Your task to perform on an android device: Go to ESPN.com Image 0: 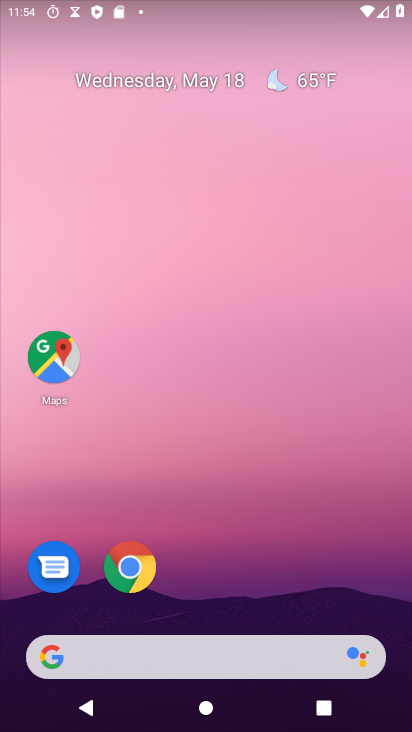
Step 0: click (133, 558)
Your task to perform on an android device: Go to ESPN.com Image 1: 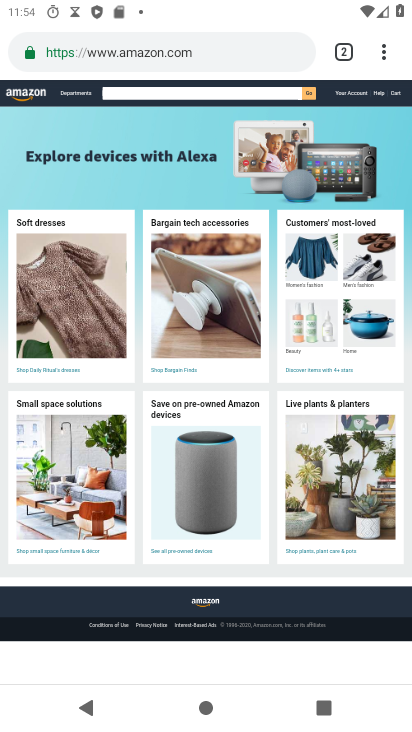
Step 1: click (350, 47)
Your task to perform on an android device: Go to ESPN.com Image 2: 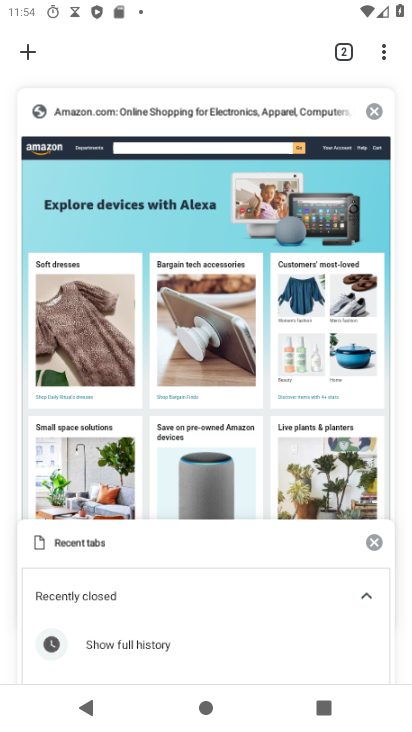
Step 2: click (27, 52)
Your task to perform on an android device: Go to ESPN.com Image 3: 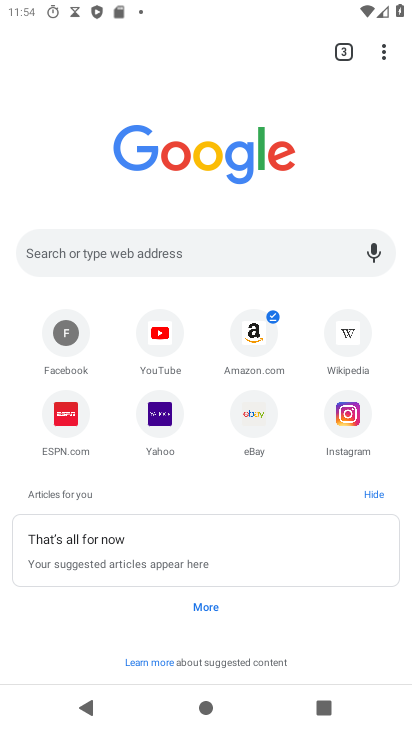
Step 3: click (65, 406)
Your task to perform on an android device: Go to ESPN.com Image 4: 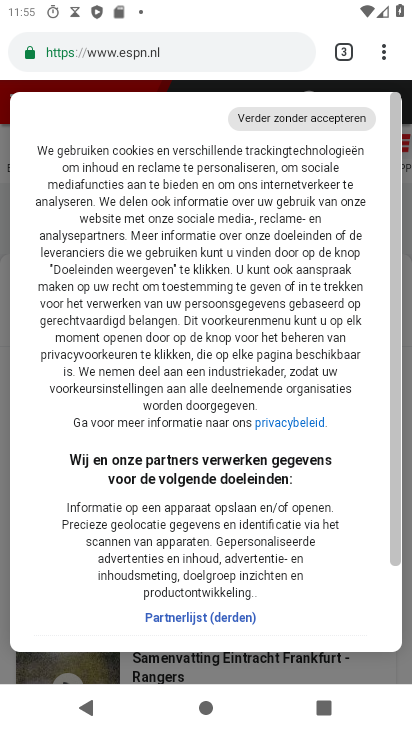
Step 4: task complete